Your task to perform on an android device: Go to Google maps Image 0: 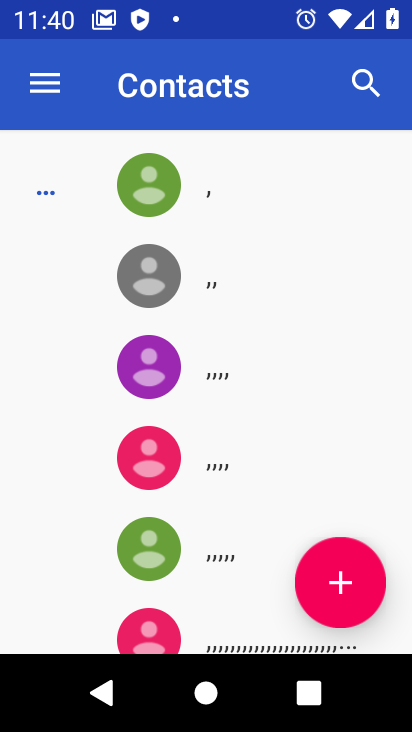
Step 0: press home button
Your task to perform on an android device: Go to Google maps Image 1: 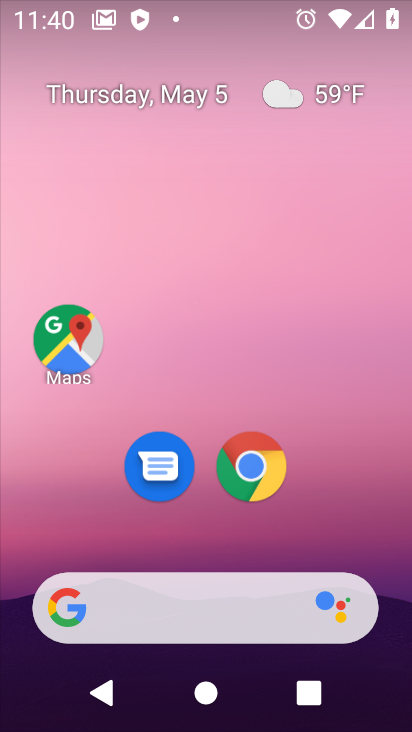
Step 1: click (63, 343)
Your task to perform on an android device: Go to Google maps Image 2: 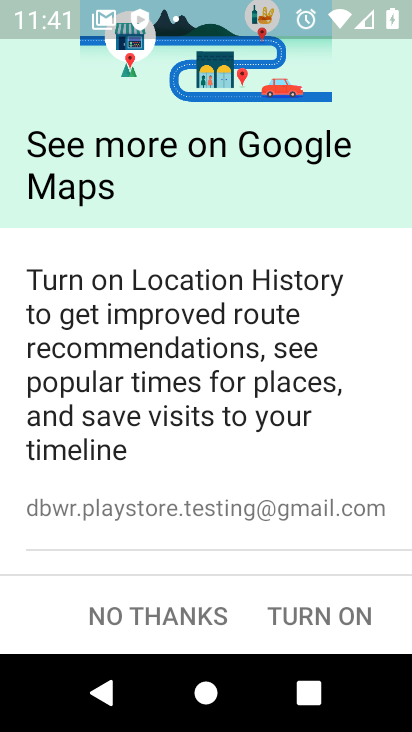
Step 2: click (193, 621)
Your task to perform on an android device: Go to Google maps Image 3: 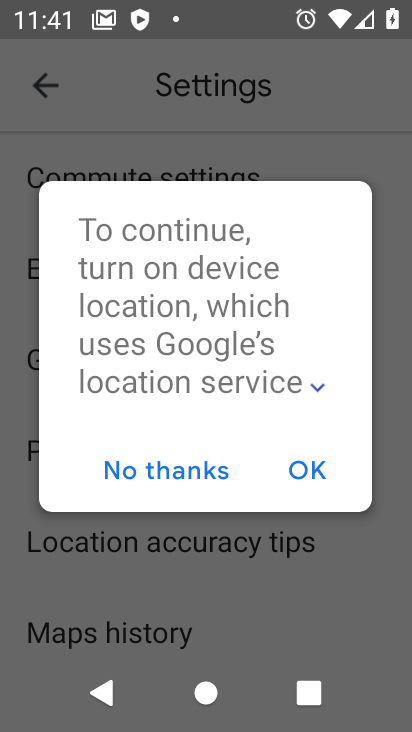
Step 3: task complete